Your task to perform on an android device: set an alarm Image 0: 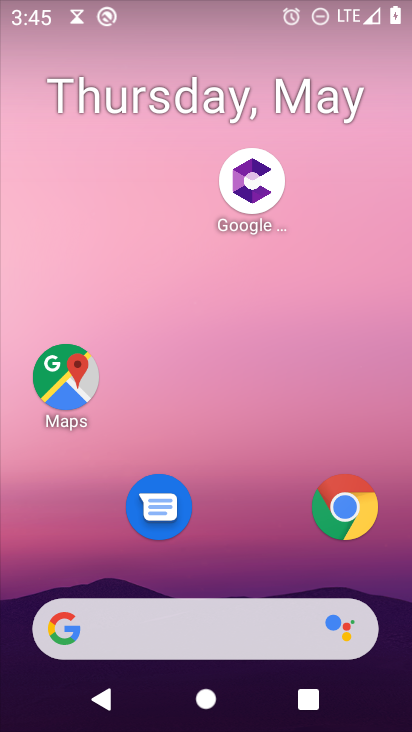
Step 0: press home button
Your task to perform on an android device: set an alarm Image 1: 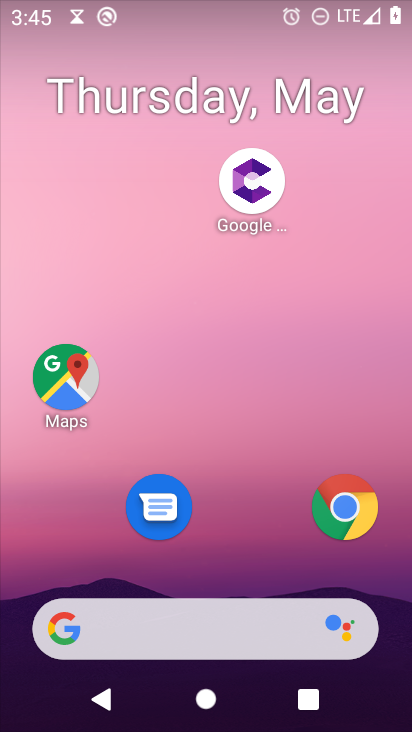
Step 1: drag from (164, 563) to (129, 268)
Your task to perform on an android device: set an alarm Image 2: 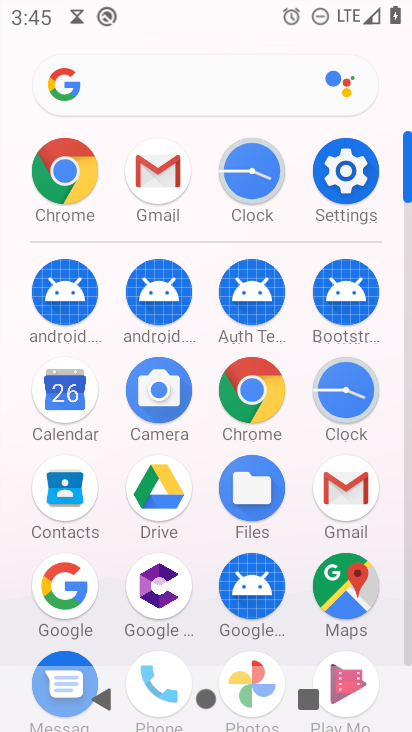
Step 2: click (241, 157)
Your task to perform on an android device: set an alarm Image 3: 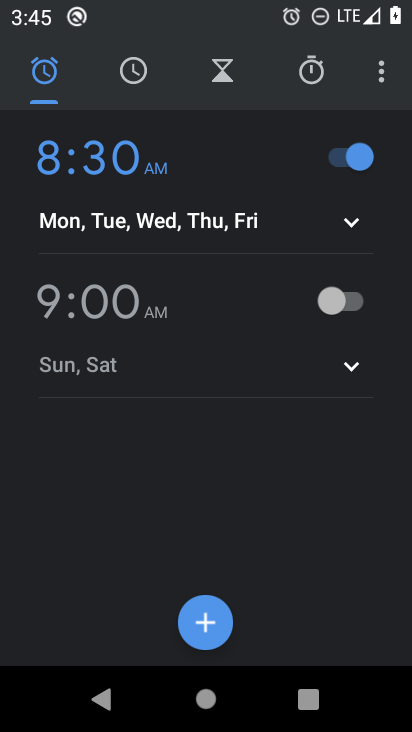
Step 3: task complete